Your task to perform on an android device: Open wifi settings Image 0: 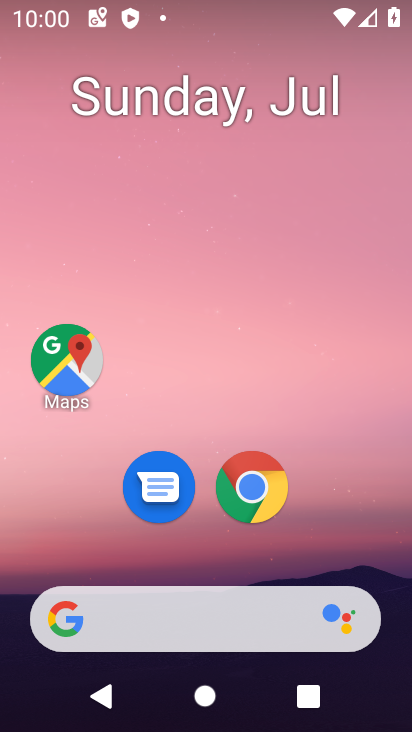
Step 0: drag from (125, 10) to (186, 571)
Your task to perform on an android device: Open wifi settings Image 1: 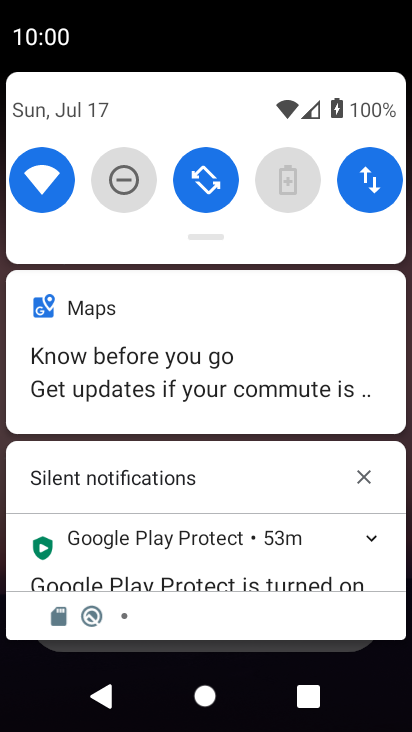
Step 1: click (41, 173)
Your task to perform on an android device: Open wifi settings Image 2: 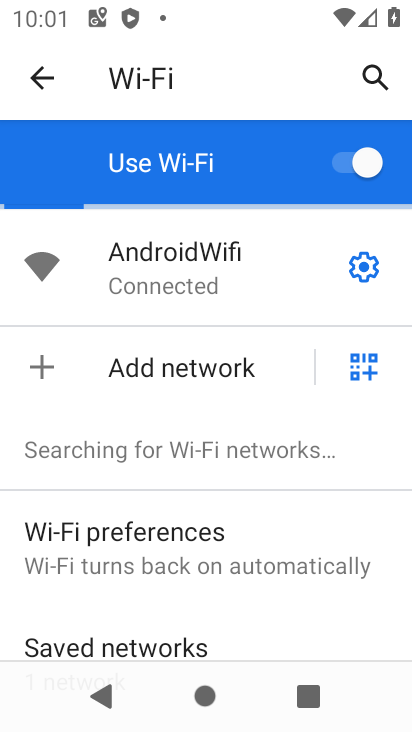
Step 2: task complete